Your task to perform on an android device: toggle wifi Image 0: 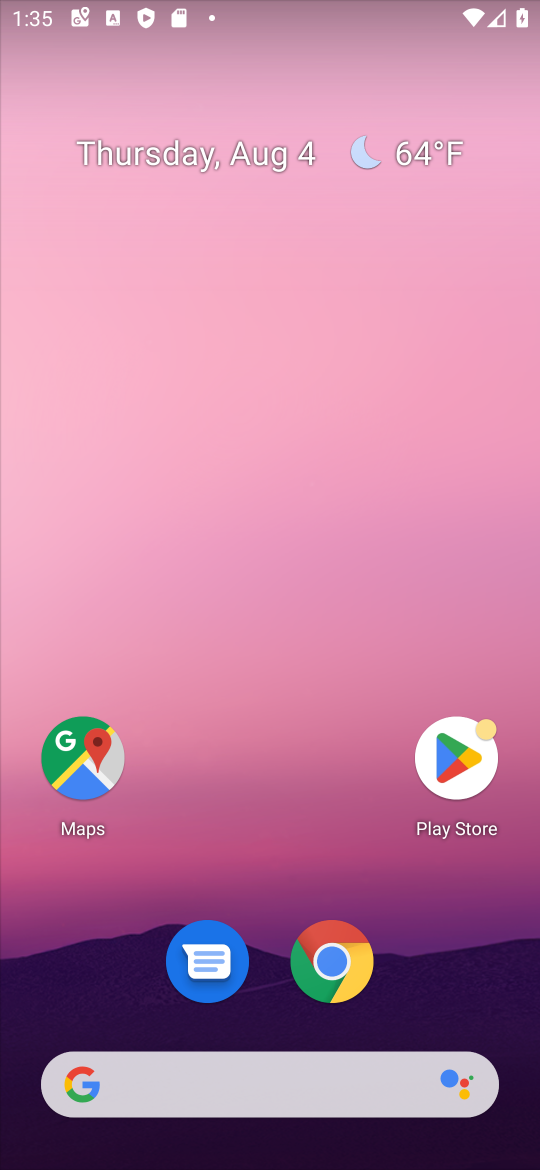
Step 0: drag from (301, 807) to (381, 14)
Your task to perform on an android device: toggle wifi Image 1: 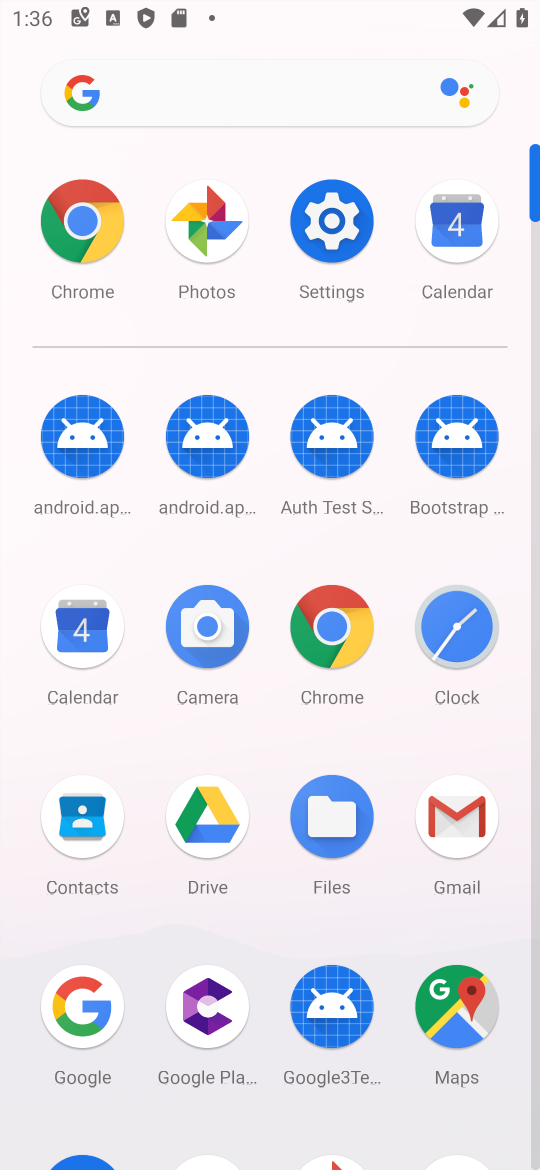
Step 1: click (345, 214)
Your task to perform on an android device: toggle wifi Image 2: 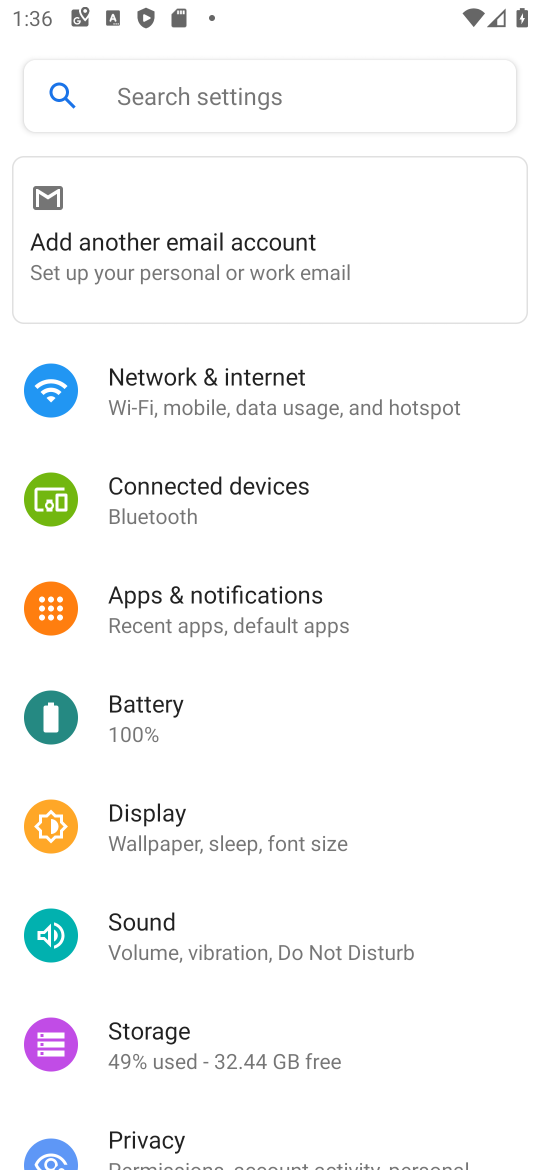
Step 2: click (321, 405)
Your task to perform on an android device: toggle wifi Image 3: 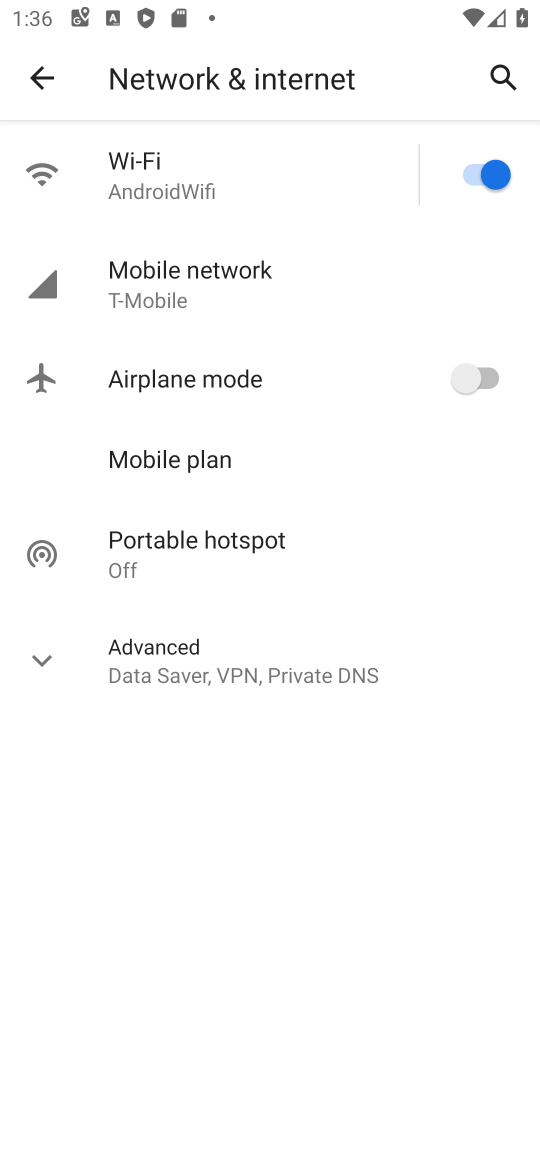
Step 3: click (470, 168)
Your task to perform on an android device: toggle wifi Image 4: 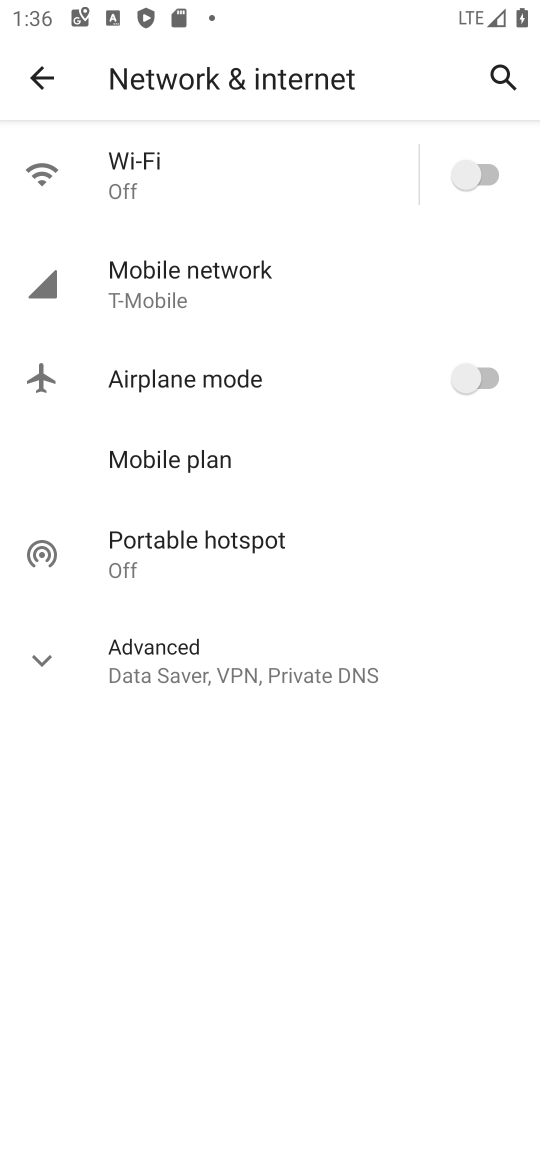
Step 4: task complete